Your task to perform on an android device: turn on data saver in the chrome app Image 0: 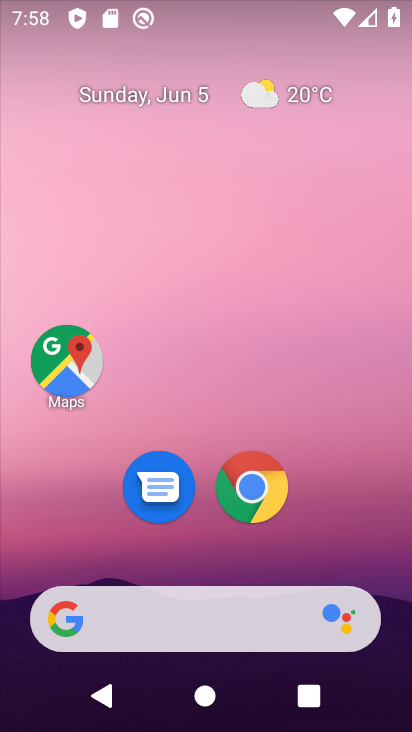
Step 0: click (257, 510)
Your task to perform on an android device: turn on data saver in the chrome app Image 1: 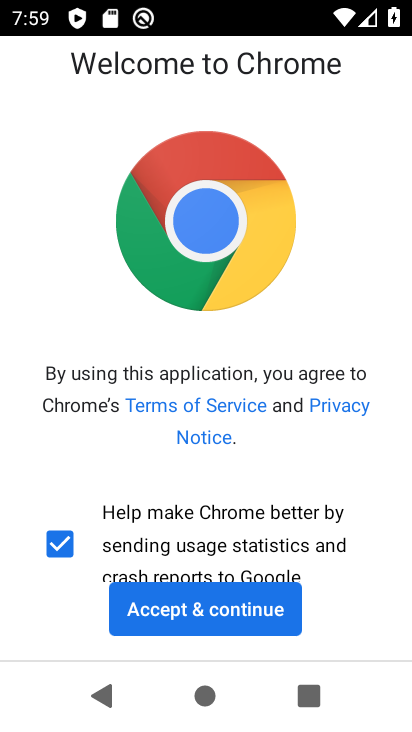
Step 1: click (267, 602)
Your task to perform on an android device: turn on data saver in the chrome app Image 2: 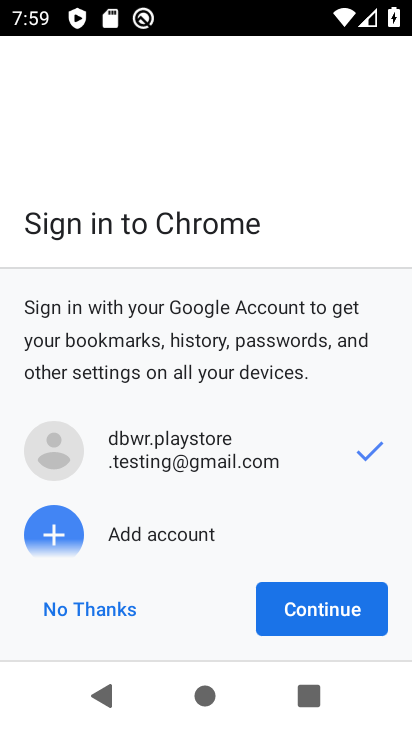
Step 2: click (321, 595)
Your task to perform on an android device: turn on data saver in the chrome app Image 3: 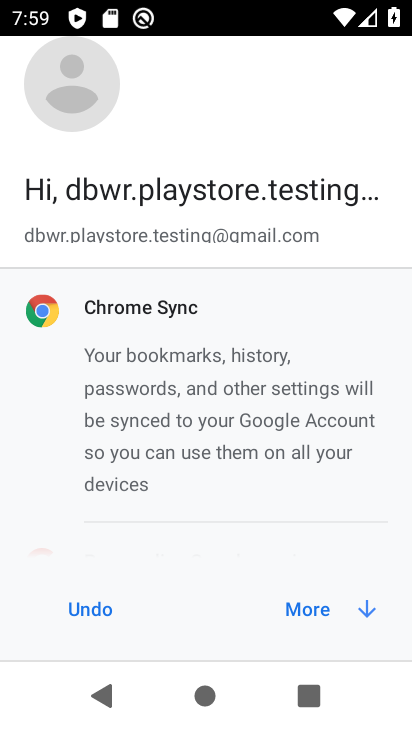
Step 3: click (310, 599)
Your task to perform on an android device: turn on data saver in the chrome app Image 4: 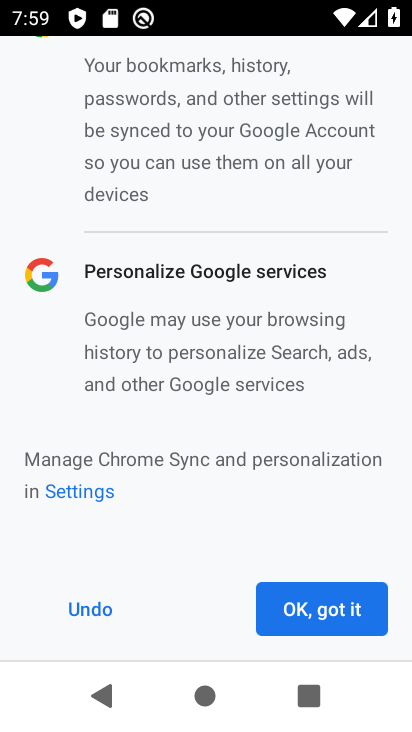
Step 4: click (310, 599)
Your task to perform on an android device: turn on data saver in the chrome app Image 5: 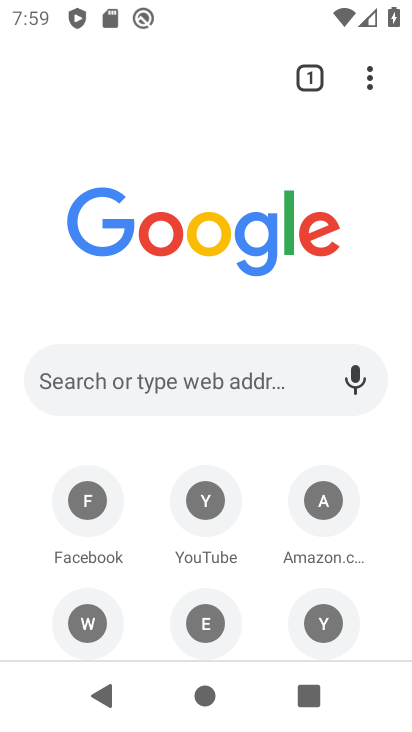
Step 5: drag from (373, 83) to (134, 540)
Your task to perform on an android device: turn on data saver in the chrome app Image 6: 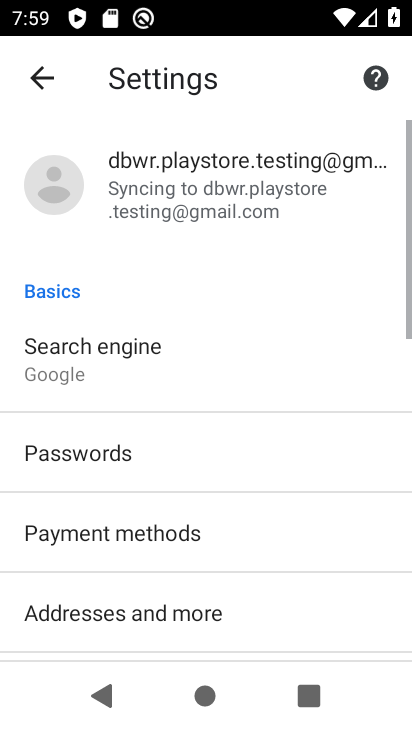
Step 6: drag from (128, 589) to (196, 210)
Your task to perform on an android device: turn on data saver in the chrome app Image 7: 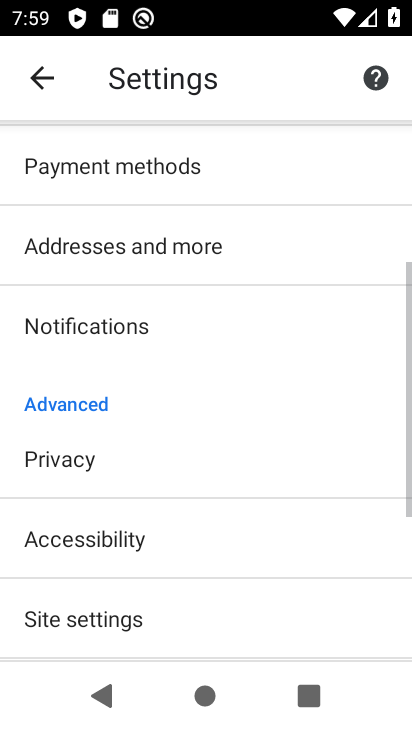
Step 7: drag from (147, 590) to (181, 381)
Your task to perform on an android device: turn on data saver in the chrome app Image 8: 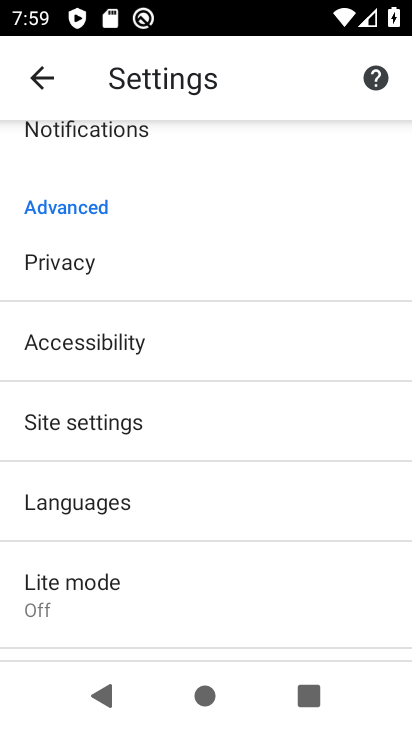
Step 8: click (106, 569)
Your task to perform on an android device: turn on data saver in the chrome app Image 9: 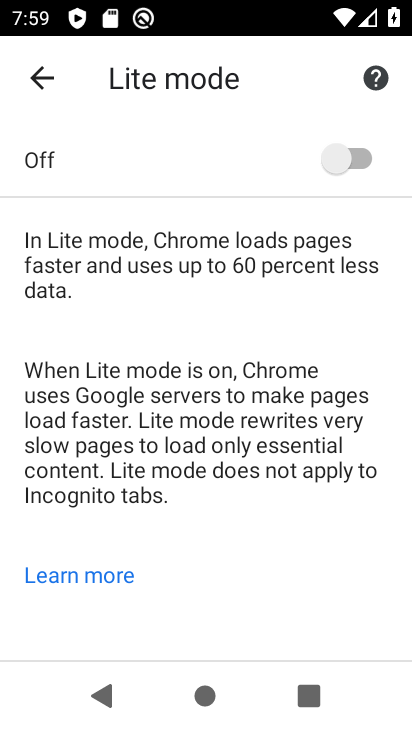
Step 9: click (360, 159)
Your task to perform on an android device: turn on data saver in the chrome app Image 10: 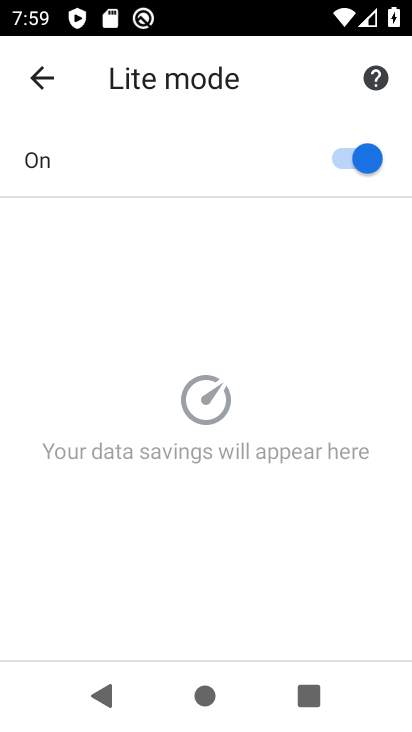
Step 10: task complete